Your task to perform on an android device: turn off data saver in the chrome app Image 0: 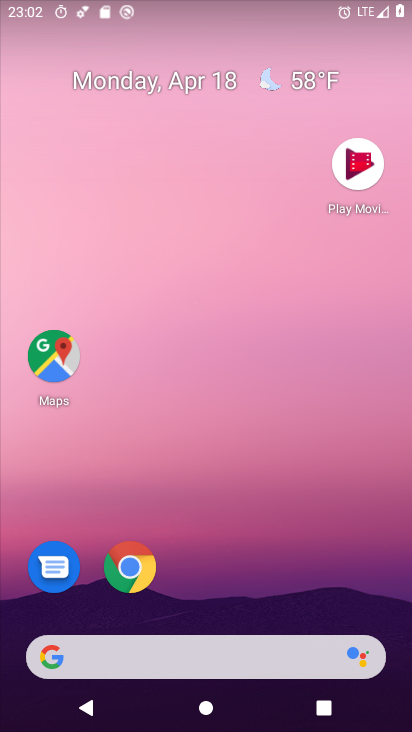
Step 0: click (204, 286)
Your task to perform on an android device: turn off data saver in the chrome app Image 1: 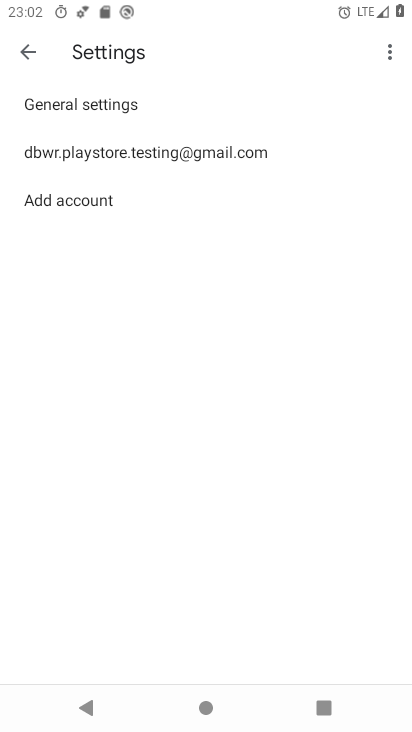
Step 1: drag from (156, 619) to (284, 217)
Your task to perform on an android device: turn off data saver in the chrome app Image 2: 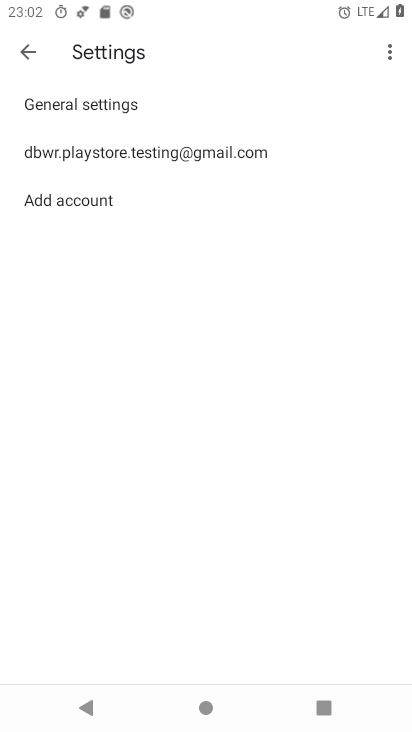
Step 2: click (138, 149)
Your task to perform on an android device: turn off data saver in the chrome app Image 3: 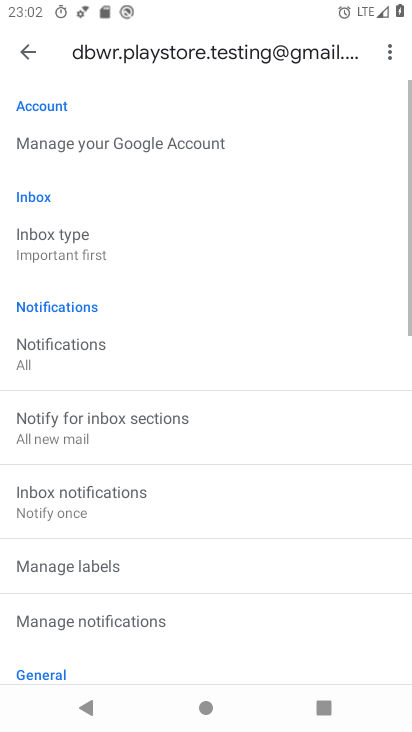
Step 3: drag from (122, 619) to (335, 14)
Your task to perform on an android device: turn off data saver in the chrome app Image 4: 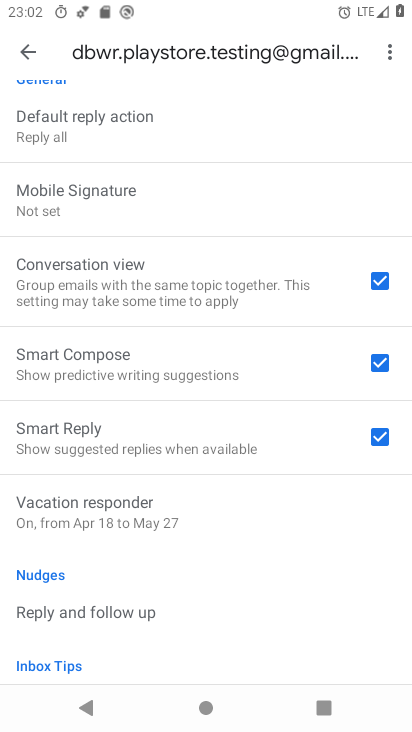
Step 4: drag from (202, 468) to (256, 0)
Your task to perform on an android device: turn off data saver in the chrome app Image 5: 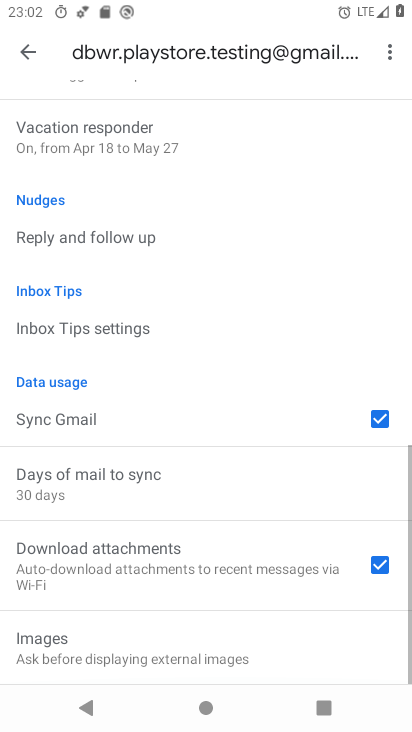
Step 5: drag from (181, 526) to (294, 135)
Your task to perform on an android device: turn off data saver in the chrome app Image 6: 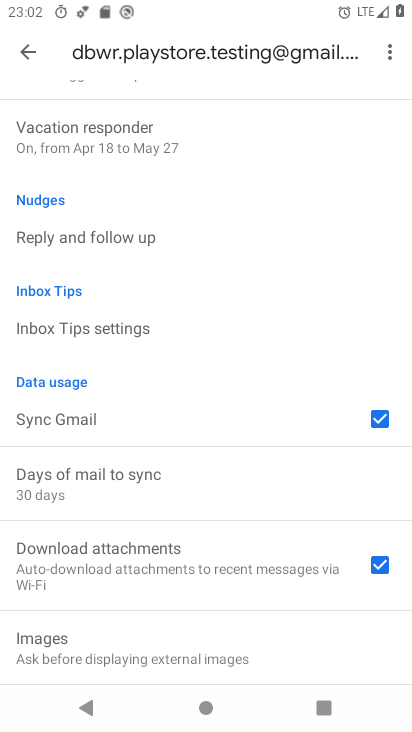
Step 6: drag from (220, 281) to (233, 701)
Your task to perform on an android device: turn off data saver in the chrome app Image 7: 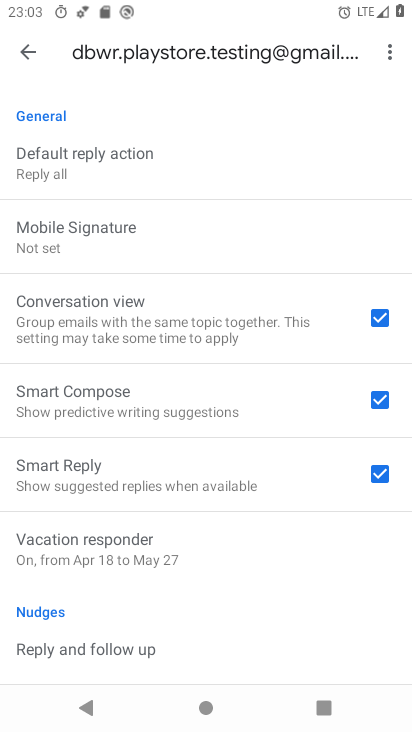
Step 7: press home button
Your task to perform on an android device: turn off data saver in the chrome app Image 8: 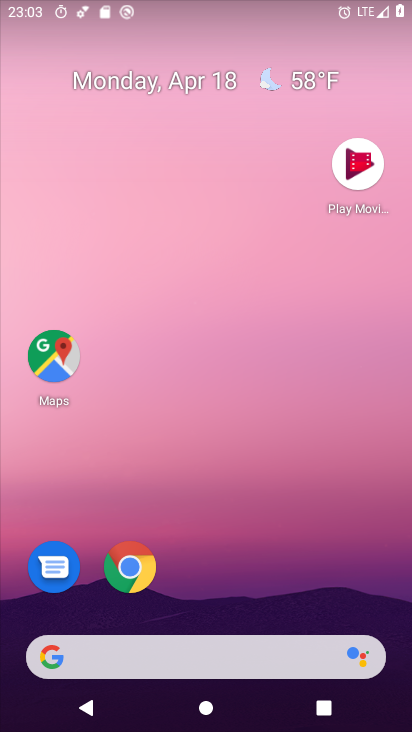
Step 8: drag from (200, 617) to (245, 176)
Your task to perform on an android device: turn off data saver in the chrome app Image 9: 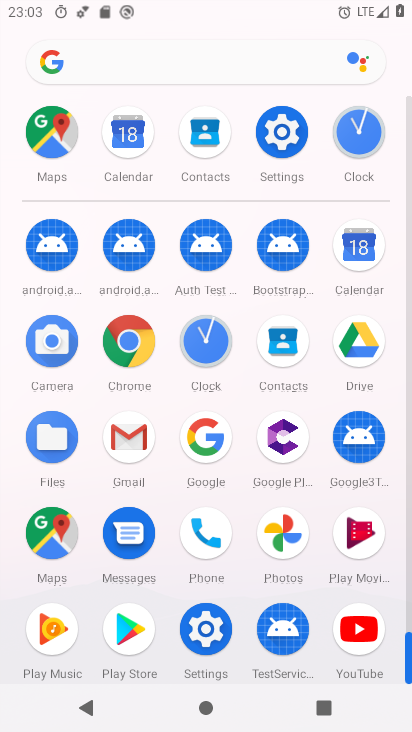
Step 9: drag from (170, 646) to (233, 209)
Your task to perform on an android device: turn off data saver in the chrome app Image 10: 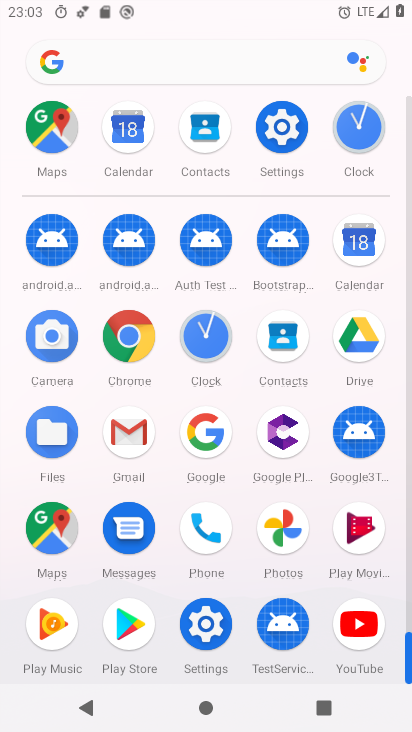
Step 10: drag from (227, 594) to (280, 248)
Your task to perform on an android device: turn off data saver in the chrome app Image 11: 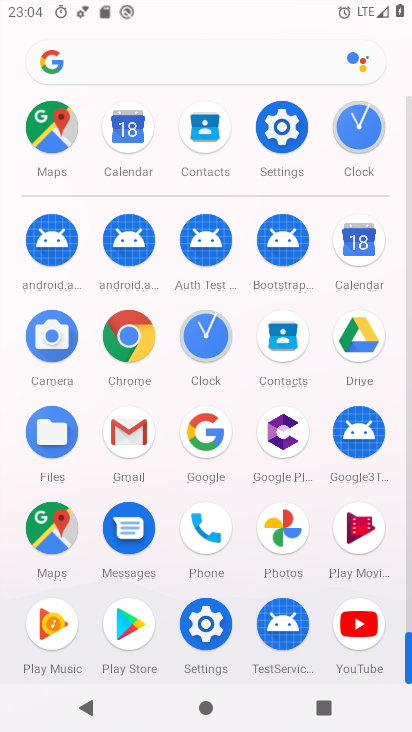
Step 11: click (128, 345)
Your task to perform on an android device: turn off data saver in the chrome app Image 12: 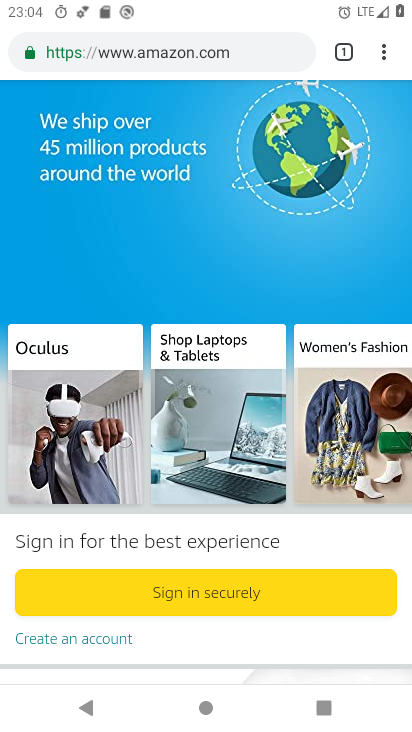
Step 12: click (385, 51)
Your task to perform on an android device: turn off data saver in the chrome app Image 13: 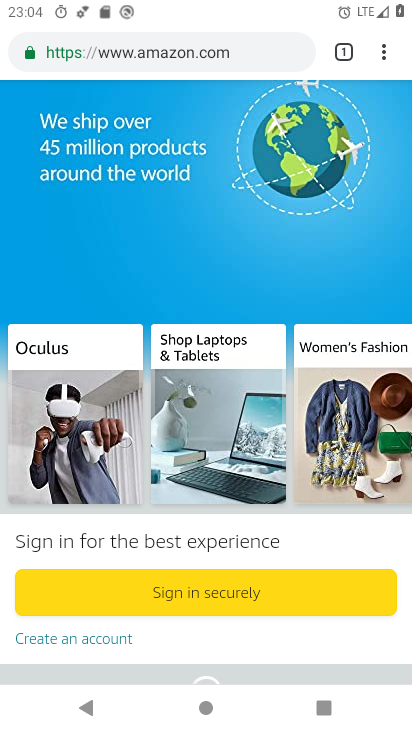
Step 13: drag from (382, 45) to (222, 599)
Your task to perform on an android device: turn off data saver in the chrome app Image 14: 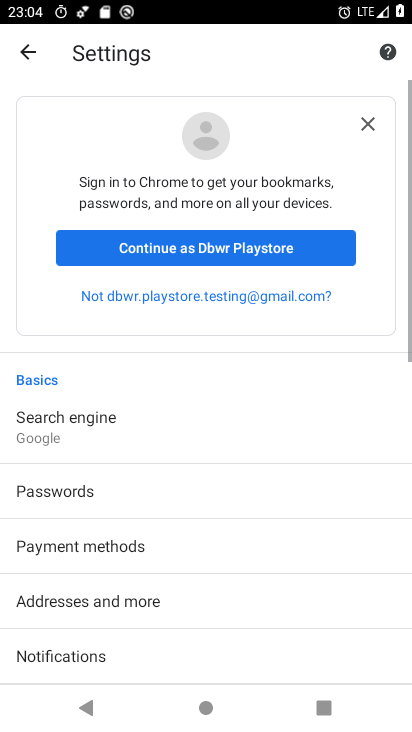
Step 14: drag from (142, 377) to (214, 152)
Your task to perform on an android device: turn off data saver in the chrome app Image 15: 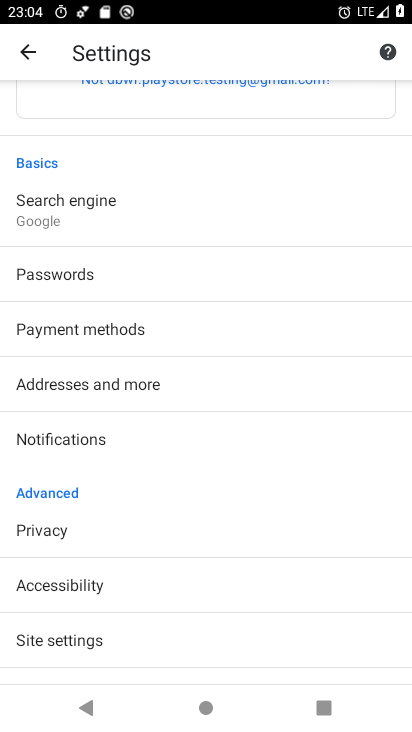
Step 15: drag from (175, 607) to (325, 206)
Your task to perform on an android device: turn off data saver in the chrome app Image 16: 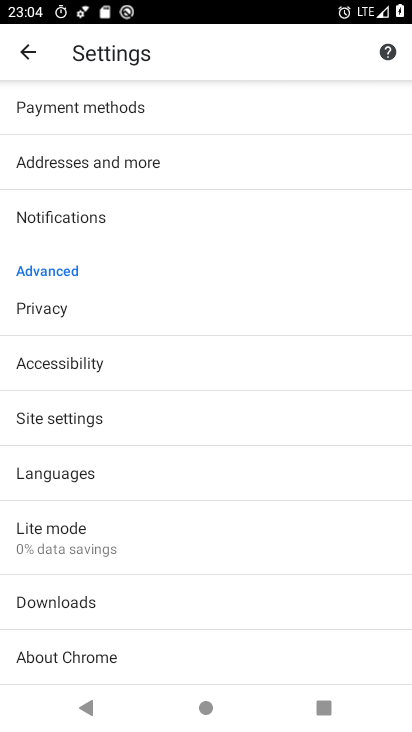
Step 16: click (110, 540)
Your task to perform on an android device: turn off data saver in the chrome app Image 17: 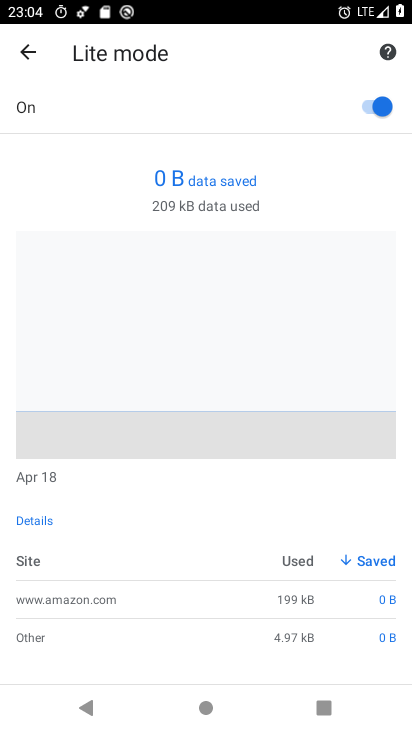
Step 17: click (374, 102)
Your task to perform on an android device: turn off data saver in the chrome app Image 18: 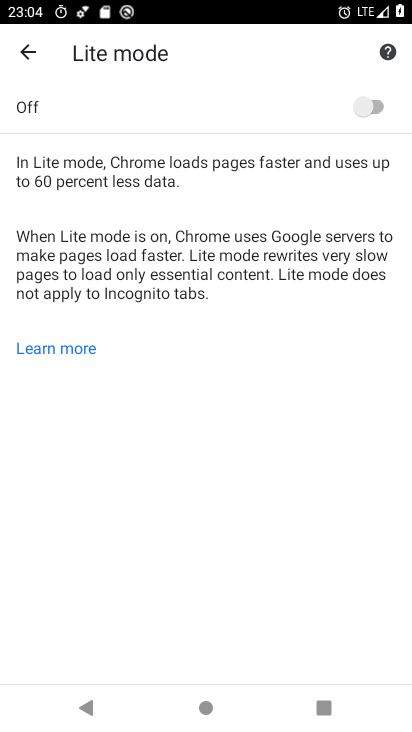
Step 18: task complete